Your task to perform on an android device: make emails show in primary in the gmail app Image 0: 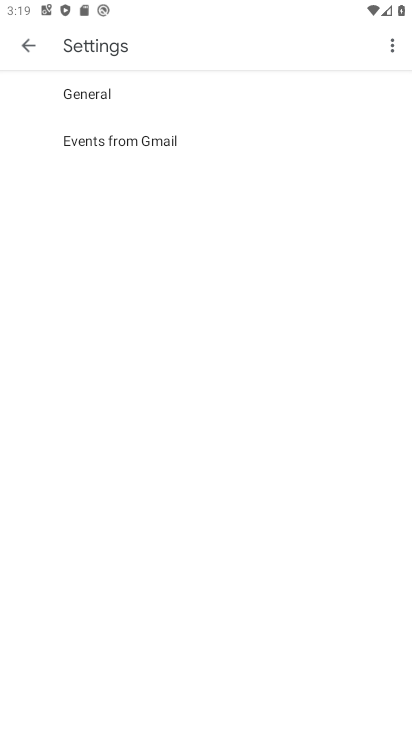
Step 0: press home button
Your task to perform on an android device: make emails show in primary in the gmail app Image 1: 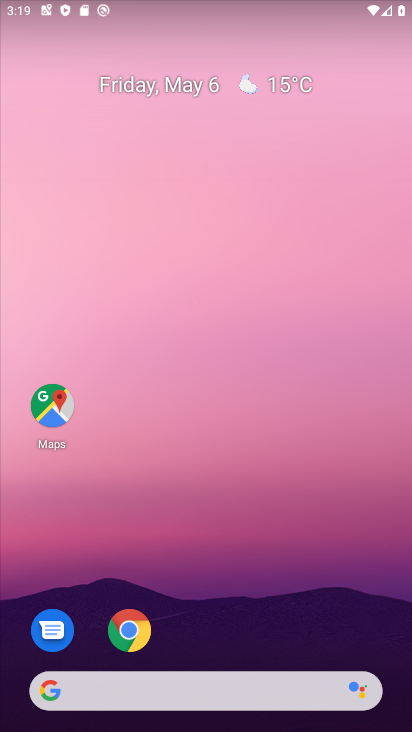
Step 1: drag from (183, 631) to (210, 316)
Your task to perform on an android device: make emails show in primary in the gmail app Image 2: 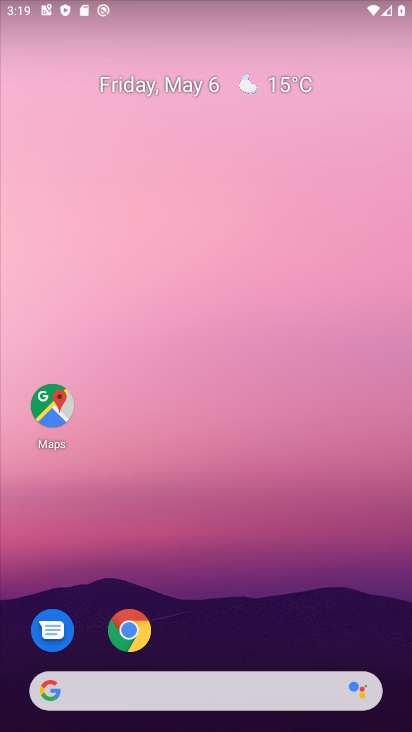
Step 2: drag from (210, 638) to (257, 143)
Your task to perform on an android device: make emails show in primary in the gmail app Image 3: 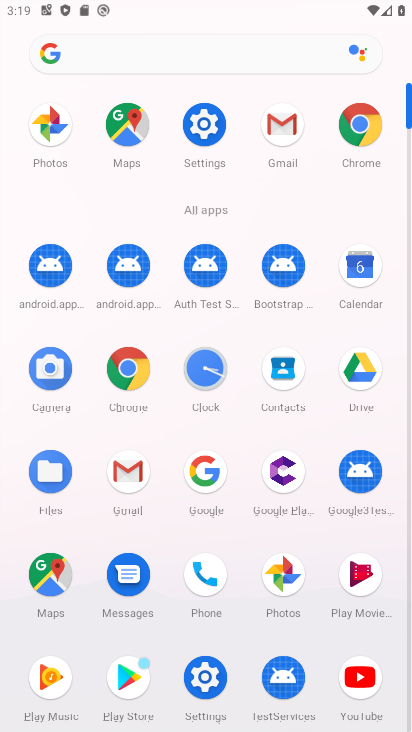
Step 3: click (267, 108)
Your task to perform on an android device: make emails show in primary in the gmail app Image 4: 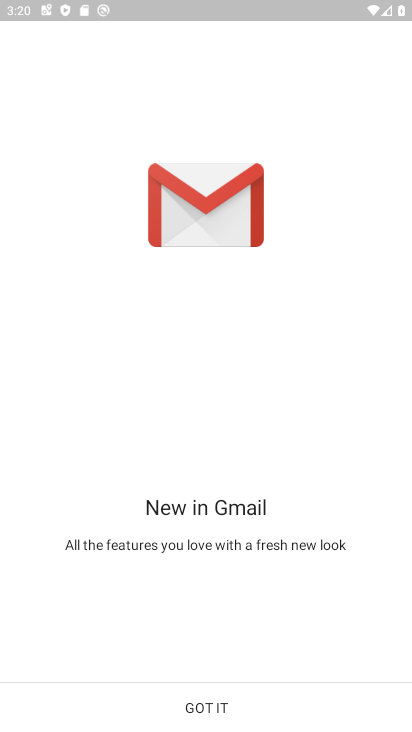
Step 4: click (197, 692)
Your task to perform on an android device: make emails show in primary in the gmail app Image 5: 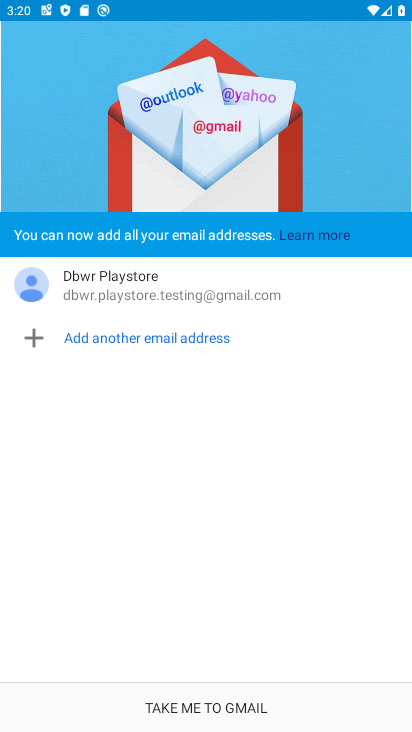
Step 5: click (190, 717)
Your task to perform on an android device: make emails show in primary in the gmail app Image 6: 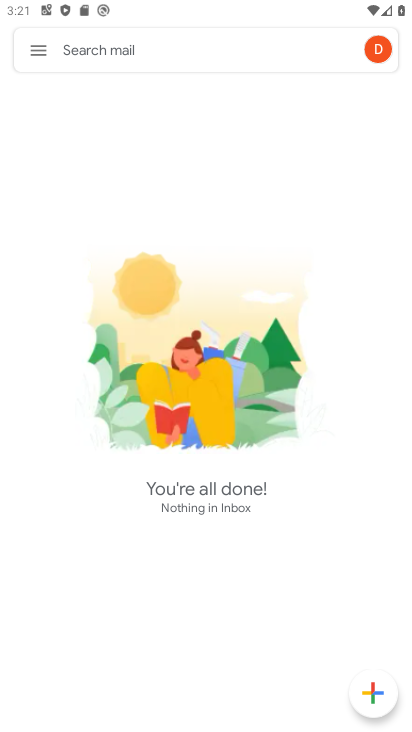
Step 6: click (40, 57)
Your task to perform on an android device: make emails show in primary in the gmail app Image 7: 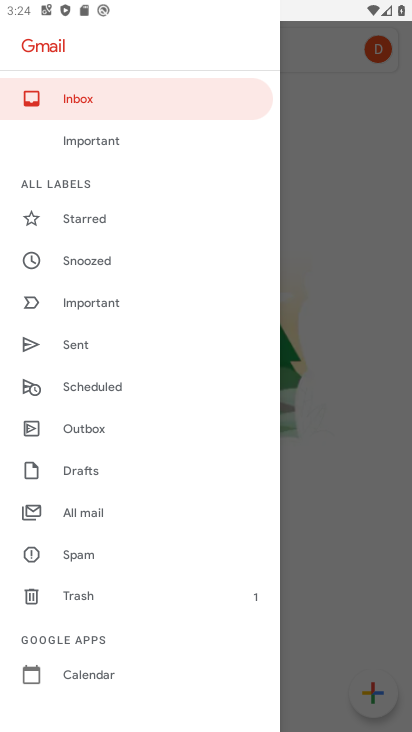
Step 7: task complete